Your task to perform on an android device: Open Youtube and go to "Your channel" Image 0: 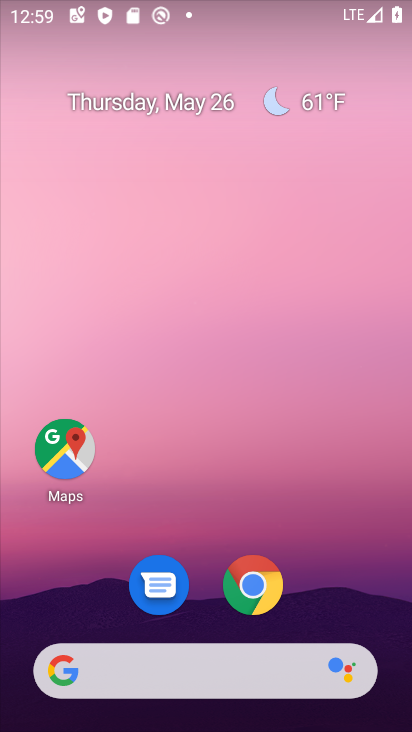
Step 0: drag from (341, 515) to (284, 62)
Your task to perform on an android device: Open Youtube and go to "Your channel" Image 1: 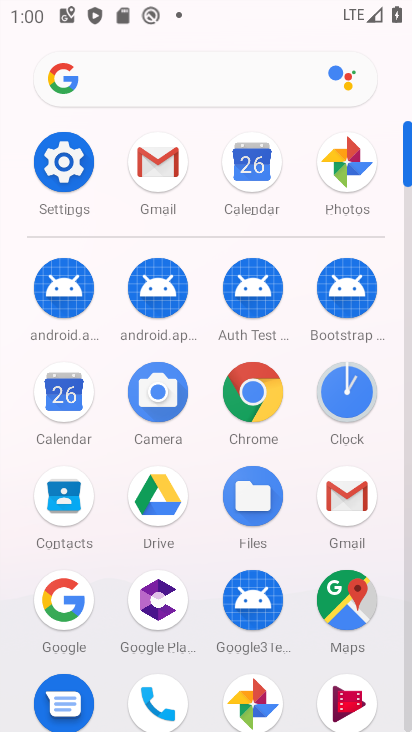
Step 1: drag from (315, 610) to (299, 294)
Your task to perform on an android device: Open Youtube and go to "Your channel" Image 2: 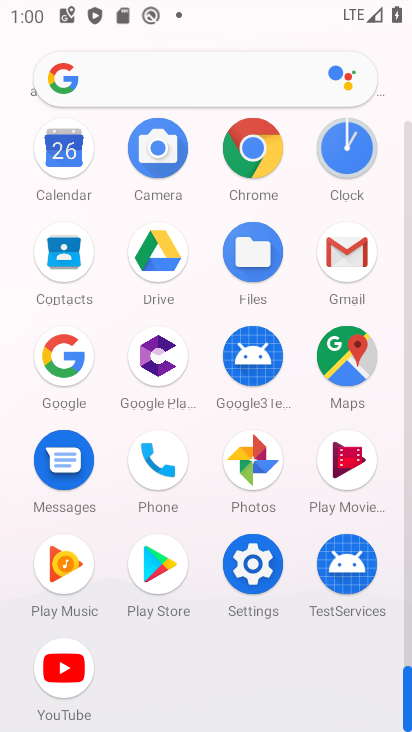
Step 2: click (68, 663)
Your task to perform on an android device: Open Youtube and go to "Your channel" Image 3: 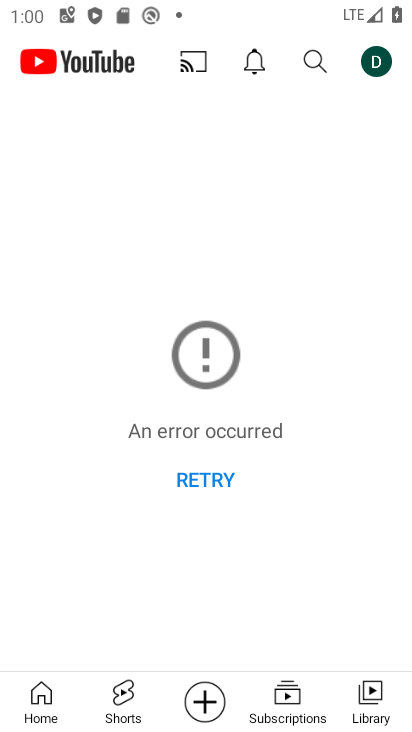
Step 3: click (377, 50)
Your task to perform on an android device: Open Youtube and go to "Your channel" Image 4: 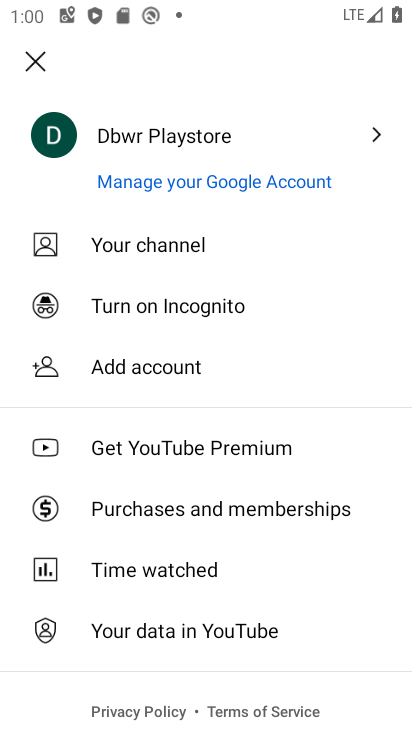
Step 4: click (179, 247)
Your task to perform on an android device: Open Youtube and go to "Your channel" Image 5: 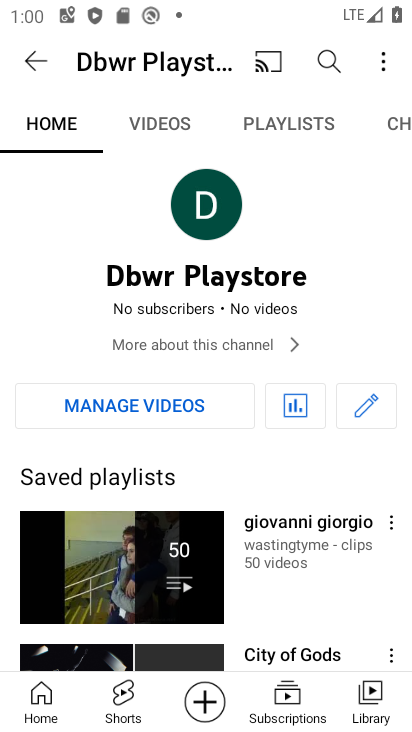
Step 5: task complete